Your task to perform on an android device: turn off translation in the chrome app Image 0: 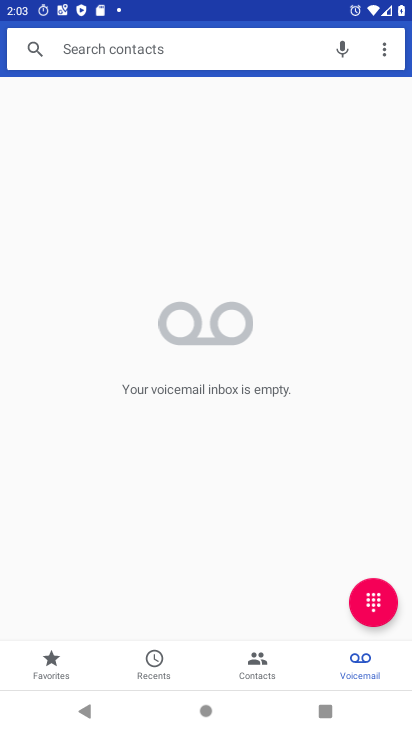
Step 0: drag from (211, 637) to (241, 140)
Your task to perform on an android device: turn off translation in the chrome app Image 1: 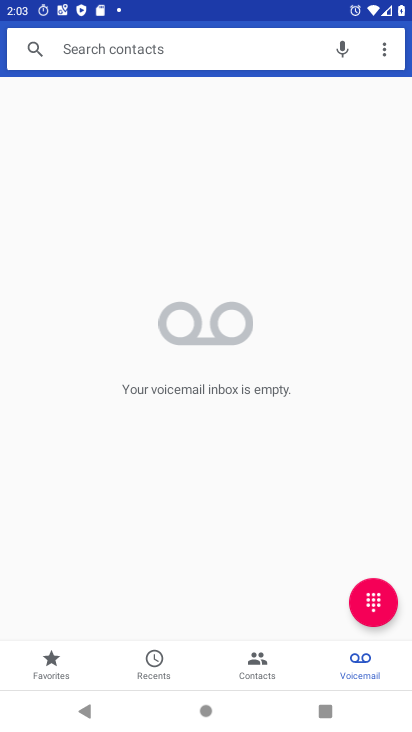
Step 1: press home button
Your task to perform on an android device: turn off translation in the chrome app Image 2: 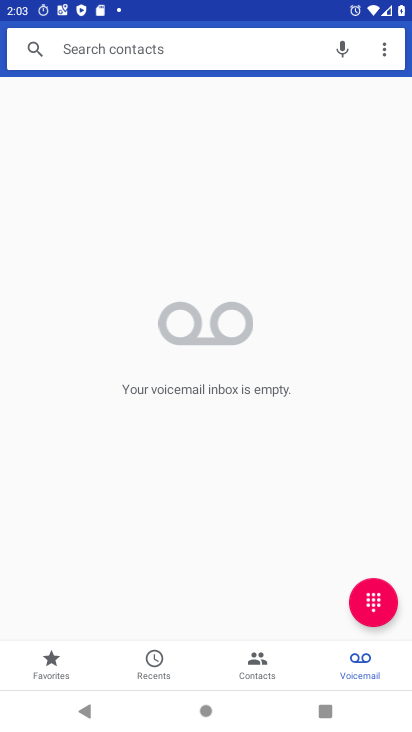
Step 2: click (274, 64)
Your task to perform on an android device: turn off translation in the chrome app Image 3: 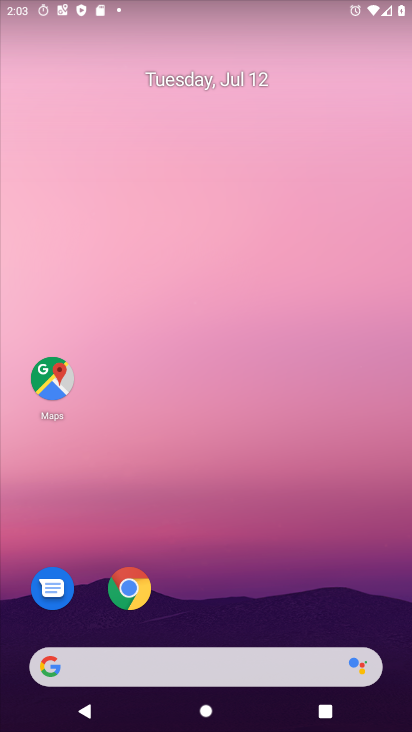
Step 3: drag from (215, 629) to (301, 8)
Your task to perform on an android device: turn off translation in the chrome app Image 4: 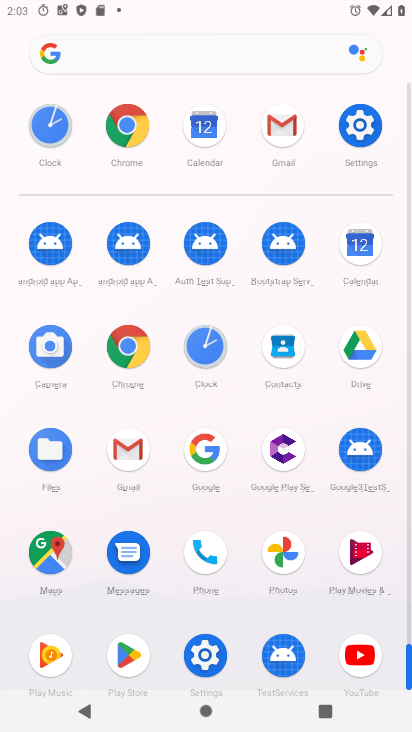
Step 4: click (114, 343)
Your task to perform on an android device: turn off translation in the chrome app Image 5: 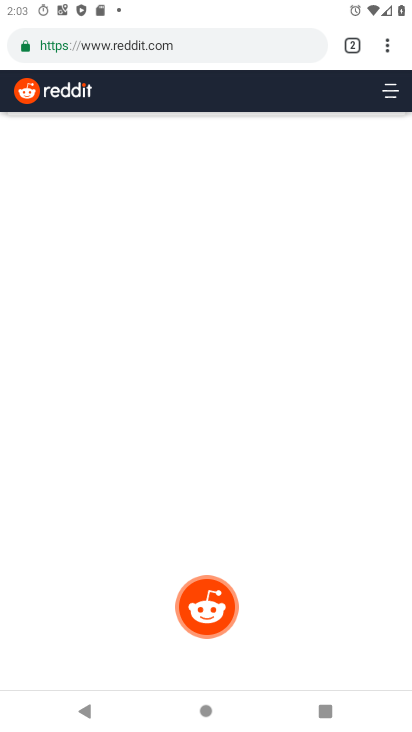
Step 5: drag from (133, 505) to (258, 234)
Your task to perform on an android device: turn off translation in the chrome app Image 6: 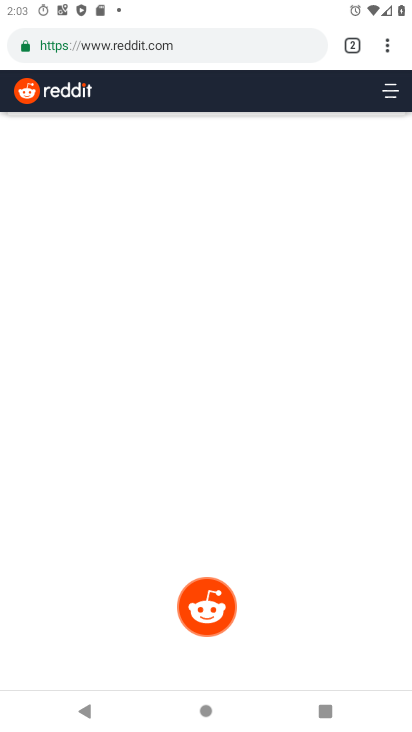
Step 6: click (385, 37)
Your task to perform on an android device: turn off translation in the chrome app Image 7: 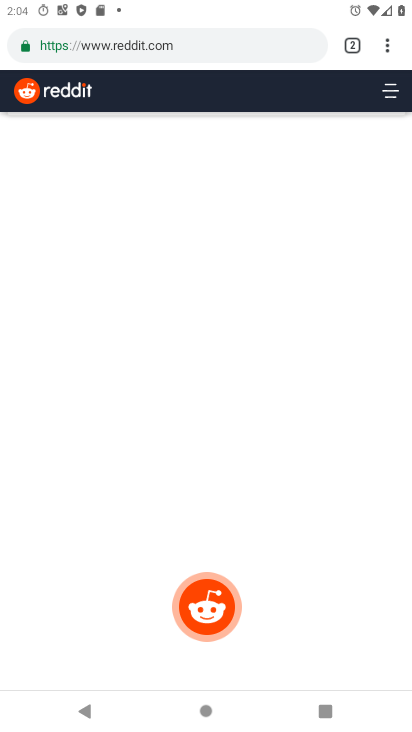
Step 7: click (384, 34)
Your task to perform on an android device: turn off translation in the chrome app Image 8: 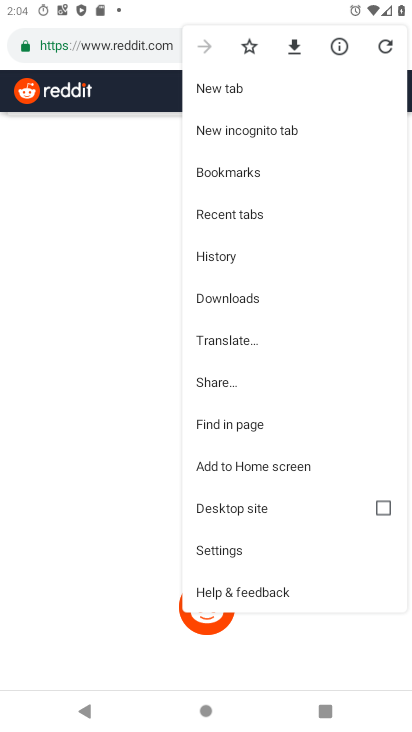
Step 8: click (242, 553)
Your task to perform on an android device: turn off translation in the chrome app Image 9: 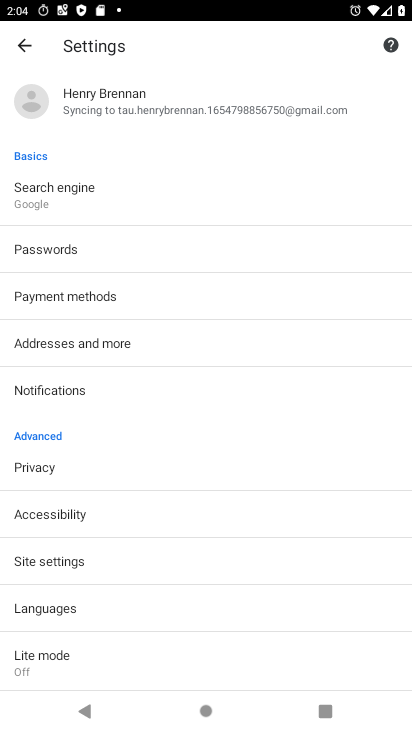
Step 9: click (90, 565)
Your task to perform on an android device: turn off translation in the chrome app Image 10: 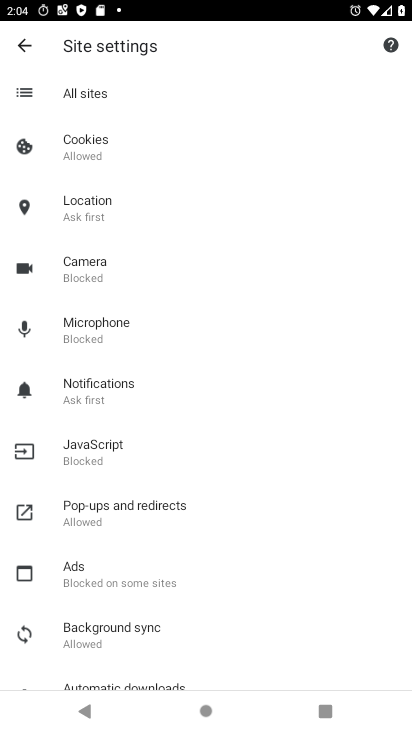
Step 10: drag from (142, 613) to (272, 117)
Your task to perform on an android device: turn off translation in the chrome app Image 11: 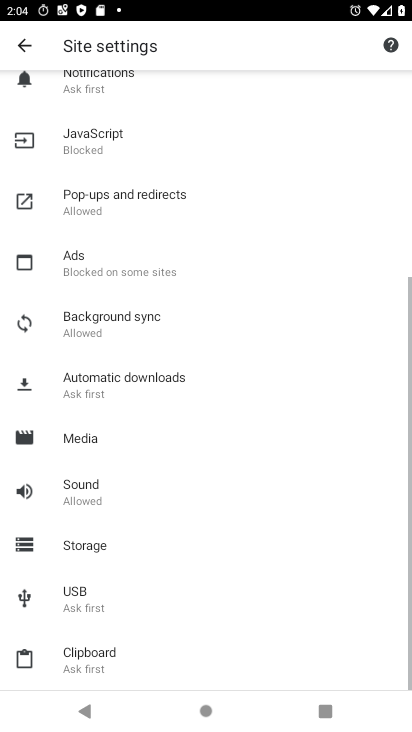
Step 11: click (25, 49)
Your task to perform on an android device: turn off translation in the chrome app Image 12: 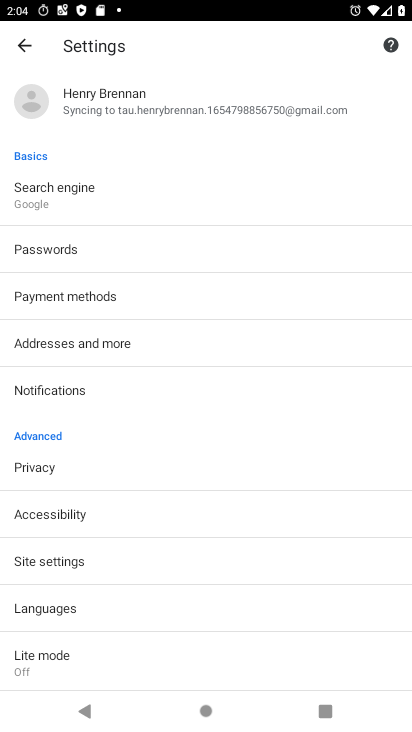
Step 12: click (62, 614)
Your task to perform on an android device: turn off translation in the chrome app Image 13: 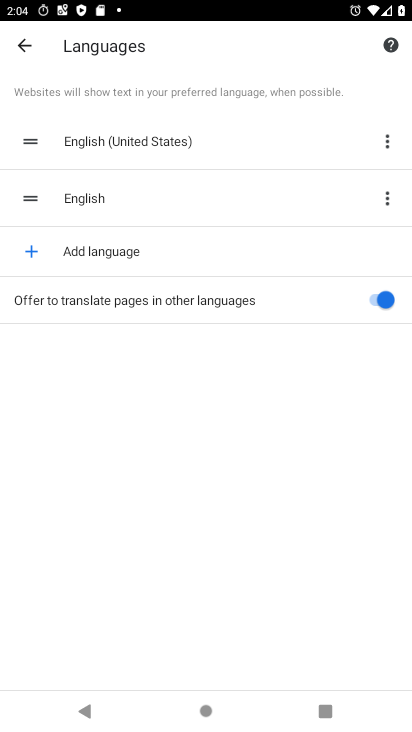
Step 13: click (358, 292)
Your task to perform on an android device: turn off translation in the chrome app Image 14: 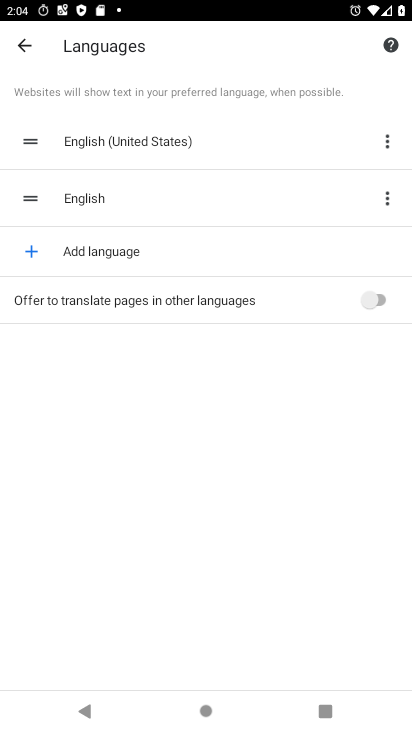
Step 14: task complete